Your task to perform on an android device: see sites visited before in the chrome app Image 0: 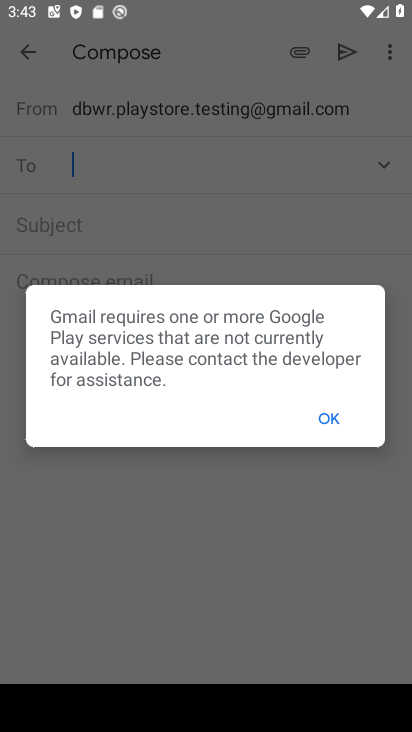
Step 0: press home button
Your task to perform on an android device: see sites visited before in the chrome app Image 1: 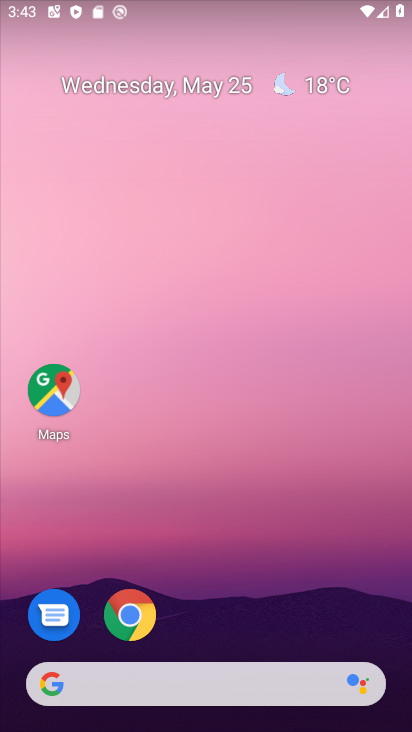
Step 1: click (131, 614)
Your task to perform on an android device: see sites visited before in the chrome app Image 2: 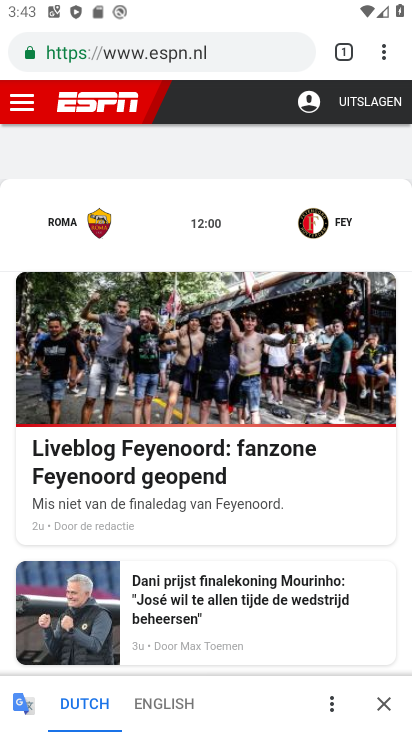
Step 2: click (398, 56)
Your task to perform on an android device: see sites visited before in the chrome app Image 3: 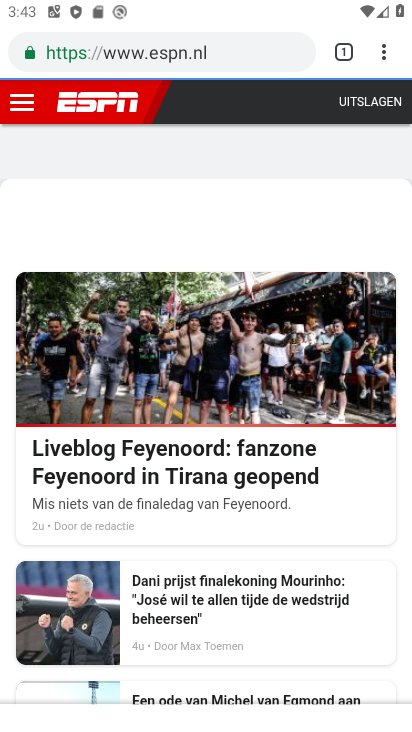
Step 3: click (389, 63)
Your task to perform on an android device: see sites visited before in the chrome app Image 4: 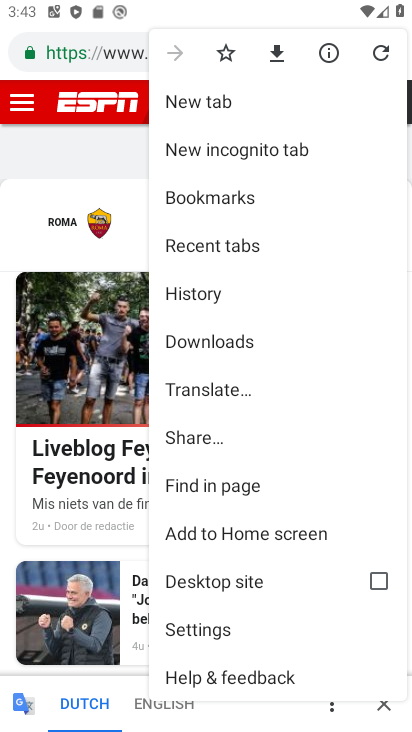
Step 4: click (220, 290)
Your task to perform on an android device: see sites visited before in the chrome app Image 5: 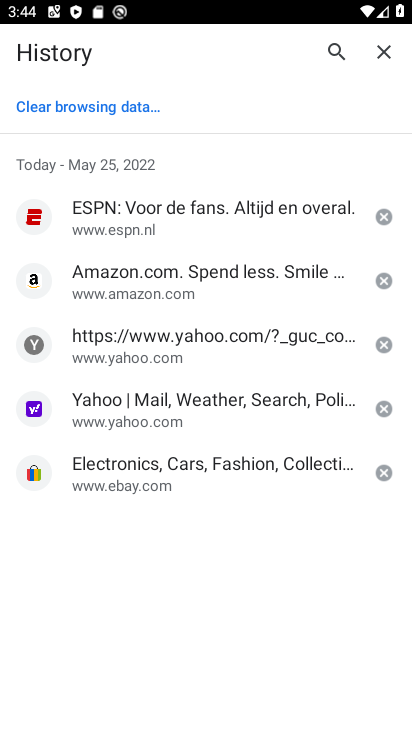
Step 5: task complete